Your task to perform on an android device: Open display settings Image 0: 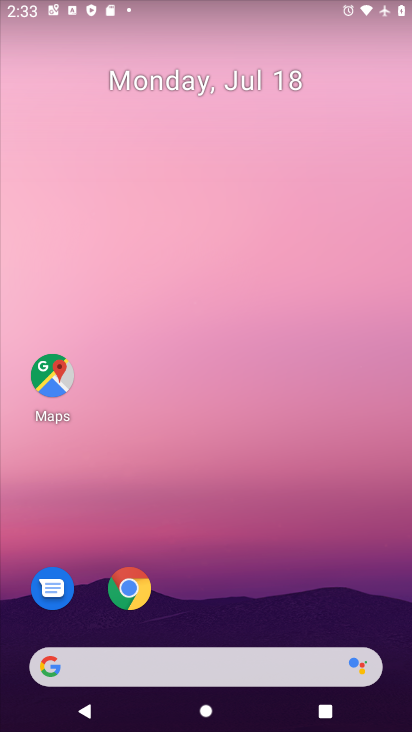
Step 0: drag from (254, 484) to (285, 120)
Your task to perform on an android device: Open display settings Image 1: 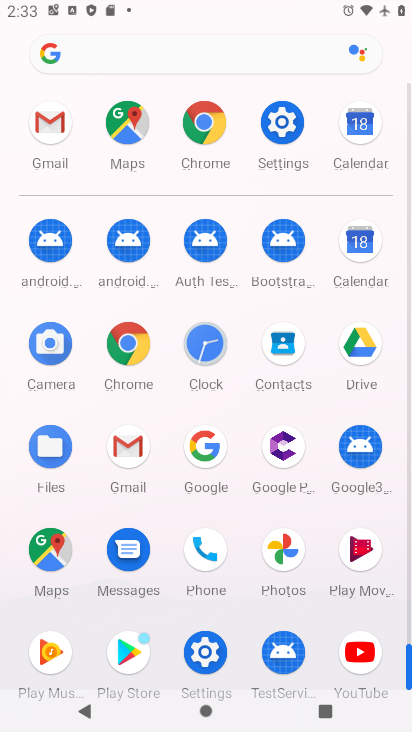
Step 1: click (278, 147)
Your task to perform on an android device: Open display settings Image 2: 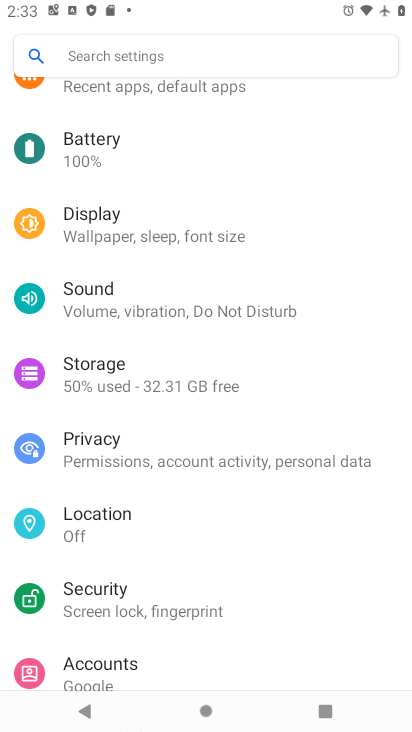
Step 2: click (146, 227)
Your task to perform on an android device: Open display settings Image 3: 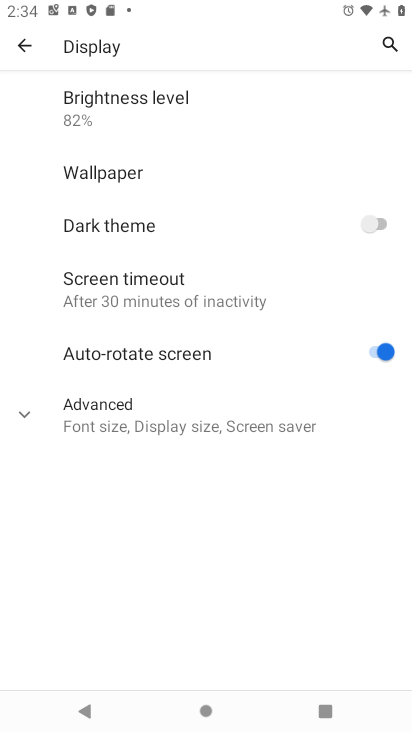
Step 3: task complete